Your task to perform on an android device: Open calendar and show me the third week of next month Image 0: 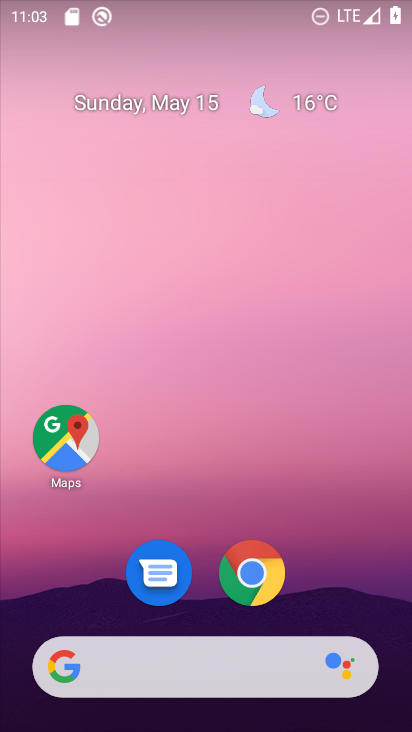
Step 0: drag from (356, 601) to (292, 28)
Your task to perform on an android device: Open calendar and show me the third week of next month Image 1: 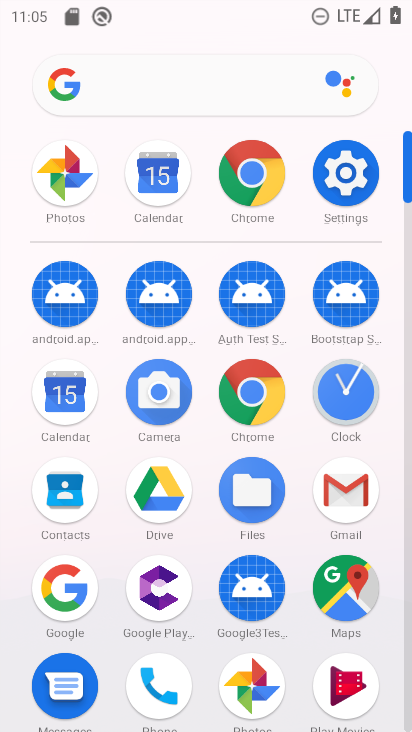
Step 1: click (73, 395)
Your task to perform on an android device: Open calendar and show me the third week of next month Image 2: 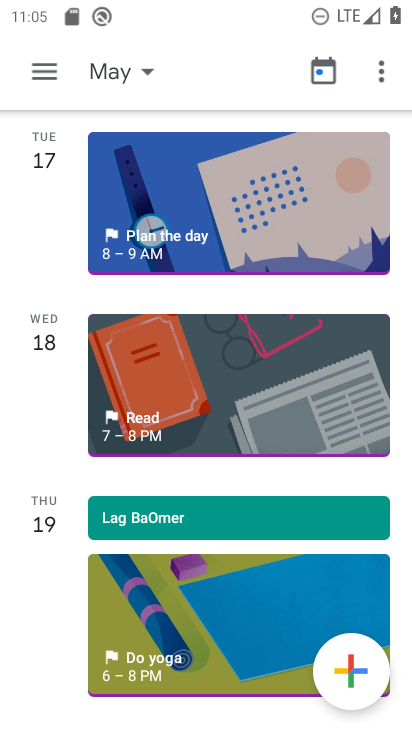
Step 2: click (158, 69)
Your task to perform on an android device: Open calendar and show me the third week of next month Image 3: 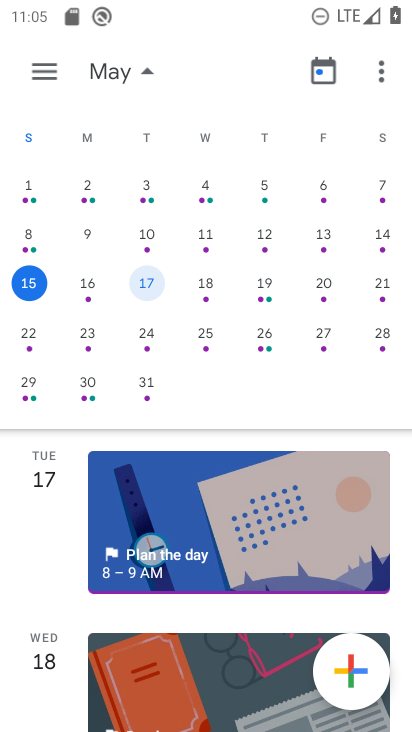
Step 3: drag from (376, 206) to (394, 301)
Your task to perform on an android device: Open calendar and show me the third week of next month Image 4: 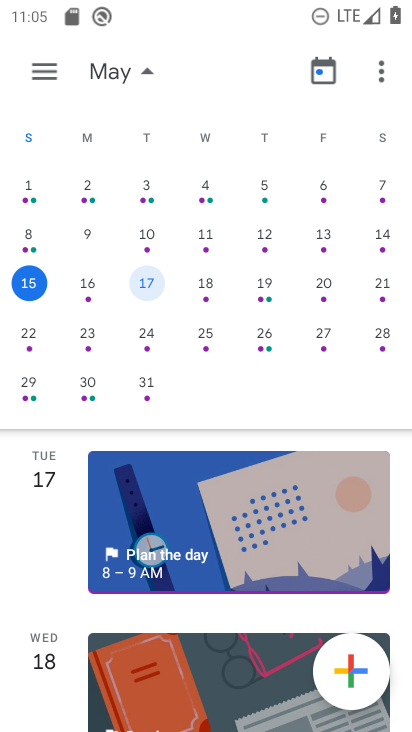
Step 4: drag from (379, 259) to (27, 320)
Your task to perform on an android device: Open calendar and show me the third week of next month Image 5: 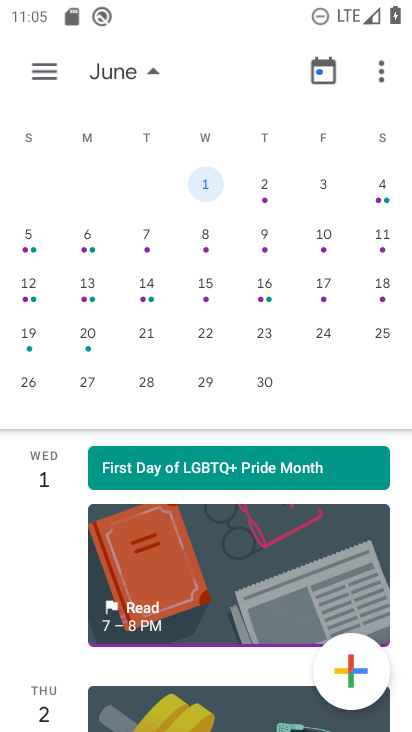
Step 5: click (206, 292)
Your task to perform on an android device: Open calendar and show me the third week of next month Image 6: 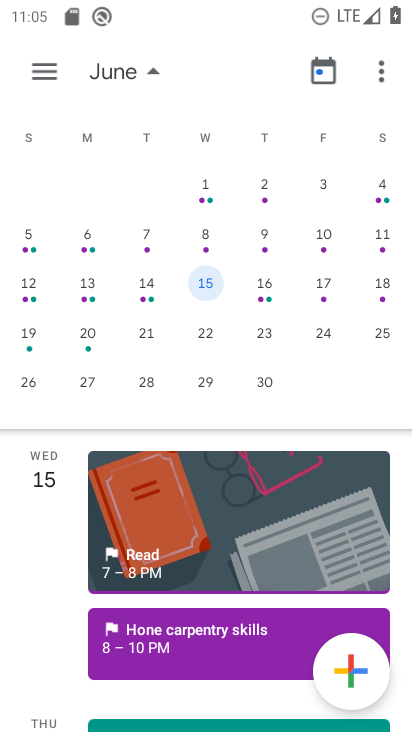
Step 6: task complete